Your task to perform on an android device: Open my contact list Image 0: 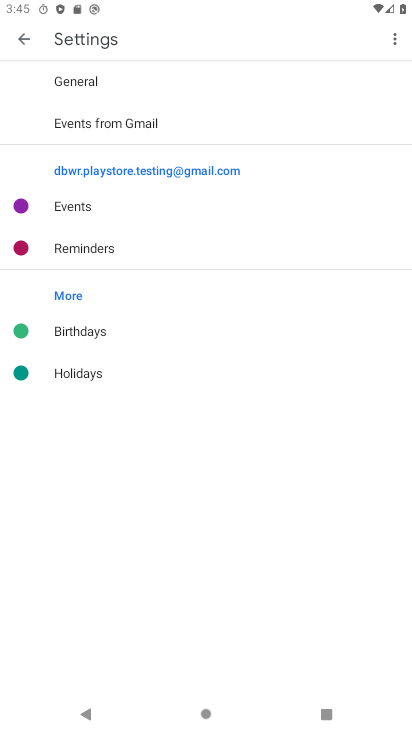
Step 0: press home button
Your task to perform on an android device: Open my contact list Image 1: 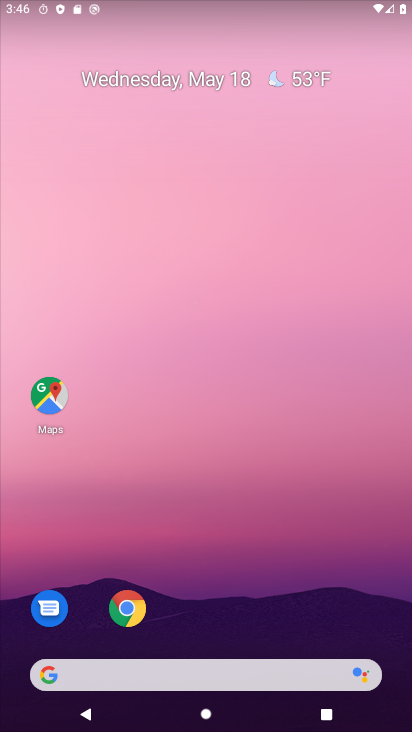
Step 1: drag from (131, 659) to (227, 4)
Your task to perform on an android device: Open my contact list Image 2: 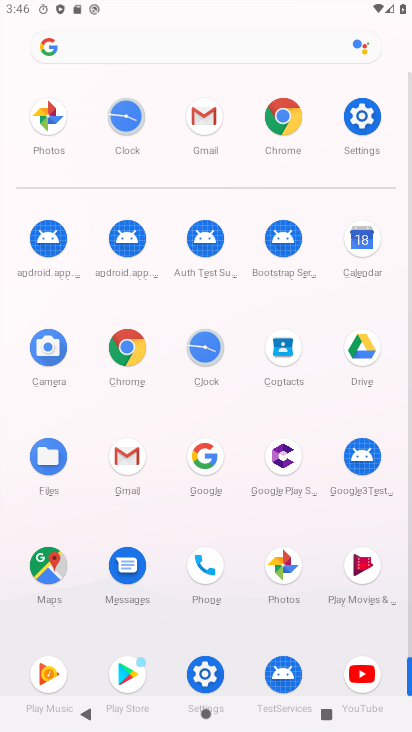
Step 2: click (281, 353)
Your task to perform on an android device: Open my contact list Image 3: 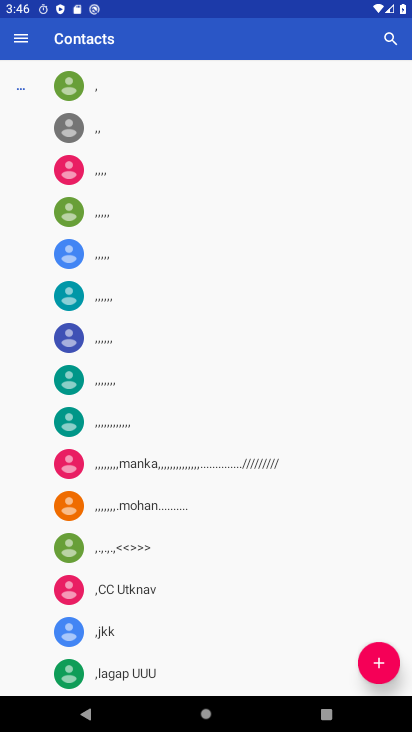
Step 3: task complete